Your task to perform on an android device: turn on showing notifications on the lock screen Image 0: 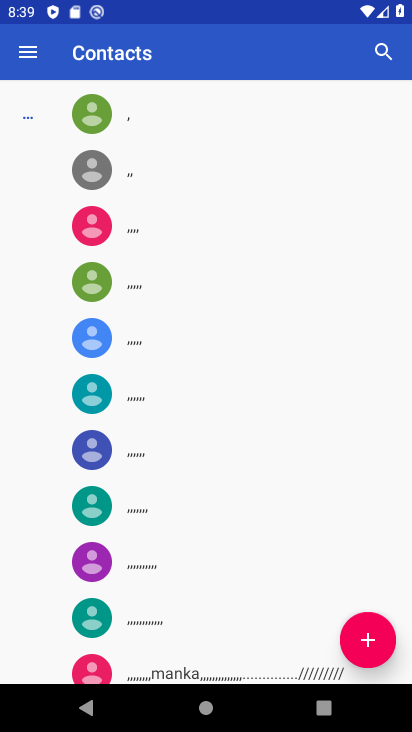
Step 0: press home button
Your task to perform on an android device: turn on showing notifications on the lock screen Image 1: 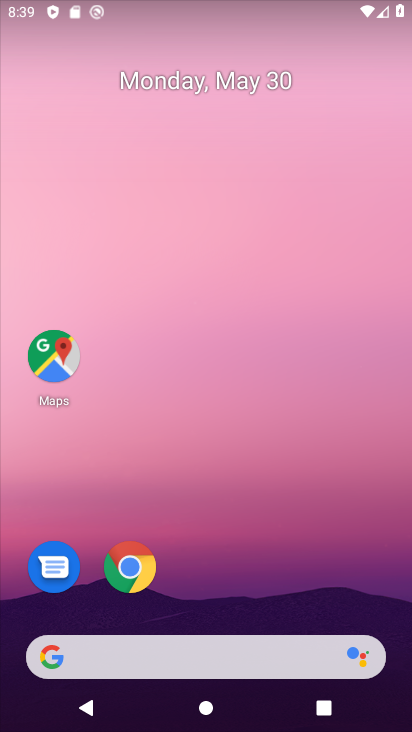
Step 1: drag from (219, 595) to (245, 12)
Your task to perform on an android device: turn on showing notifications on the lock screen Image 2: 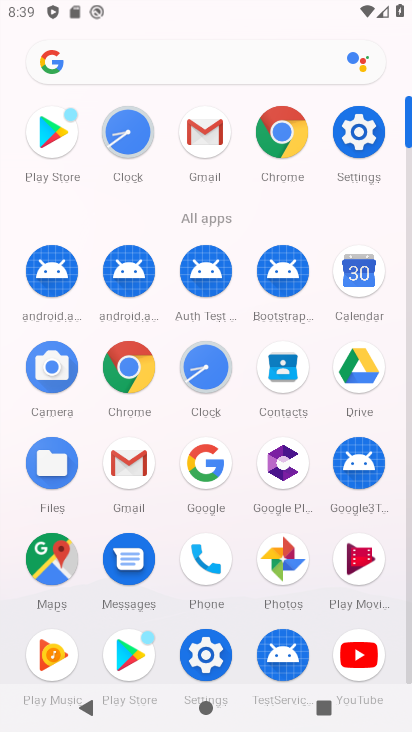
Step 2: click (356, 126)
Your task to perform on an android device: turn on showing notifications on the lock screen Image 3: 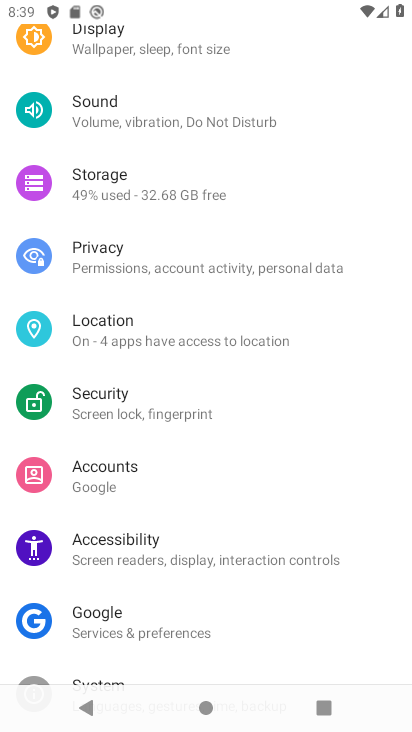
Step 3: drag from (162, 69) to (158, 523)
Your task to perform on an android device: turn on showing notifications on the lock screen Image 4: 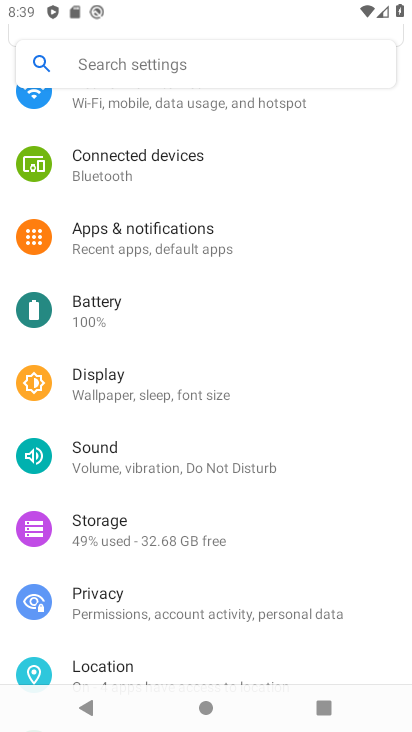
Step 4: click (151, 235)
Your task to perform on an android device: turn on showing notifications on the lock screen Image 5: 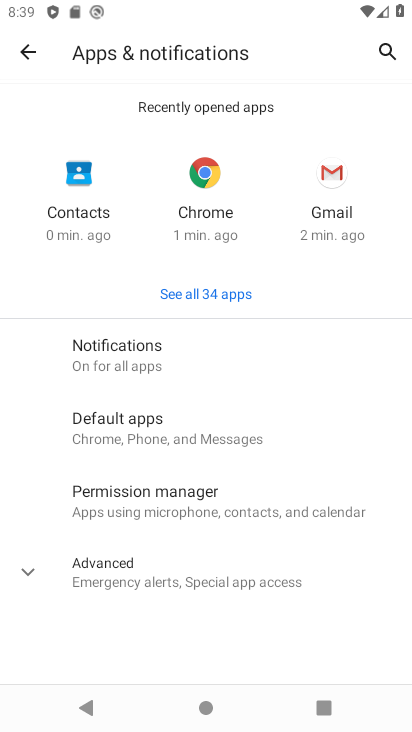
Step 5: click (185, 350)
Your task to perform on an android device: turn on showing notifications on the lock screen Image 6: 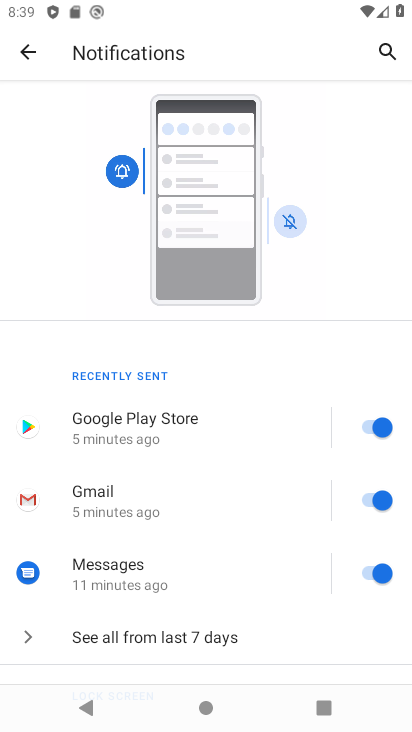
Step 6: drag from (180, 642) to (189, 213)
Your task to perform on an android device: turn on showing notifications on the lock screen Image 7: 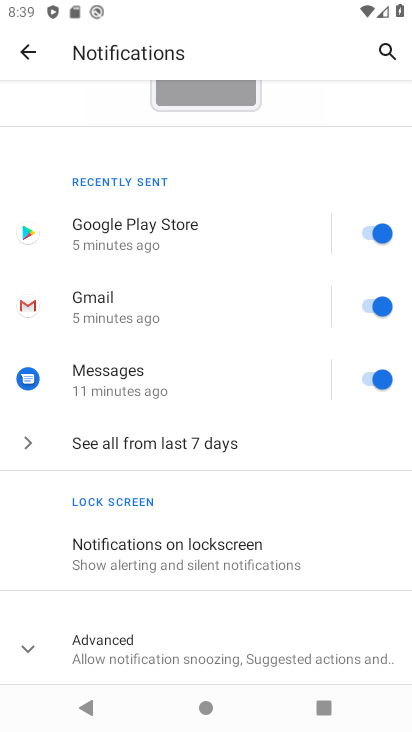
Step 7: click (255, 548)
Your task to perform on an android device: turn on showing notifications on the lock screen Image 8: 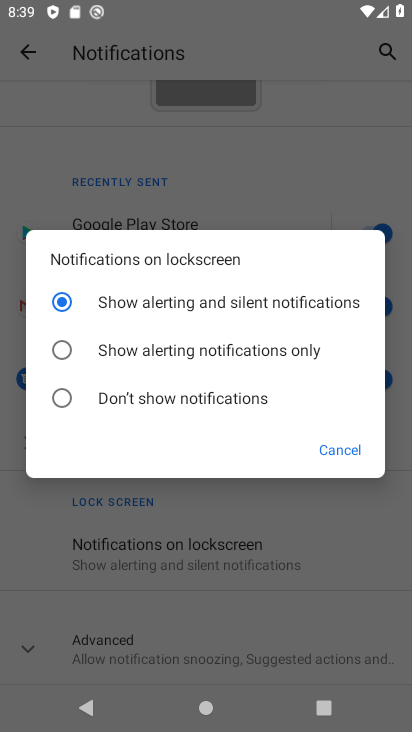
Step 8: task complete